Your task to perform on an android device: open app "Clock" (install if not already installed) Image 0: 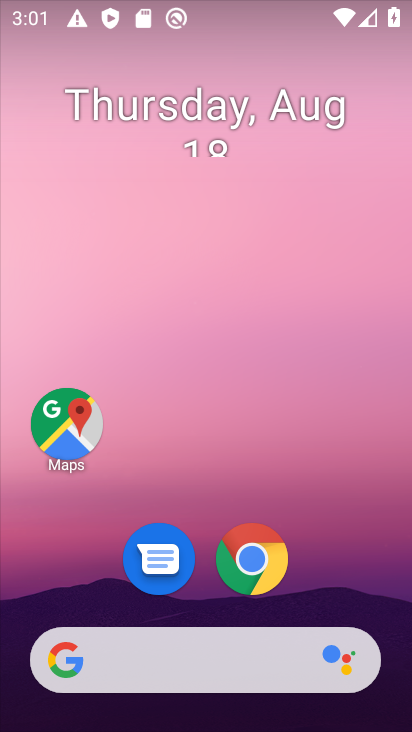
Step 0: drag from (146, 601) to (0, 68)
Your task to perform on an android device: open app "Clock" (install if not already installed) Image 1: 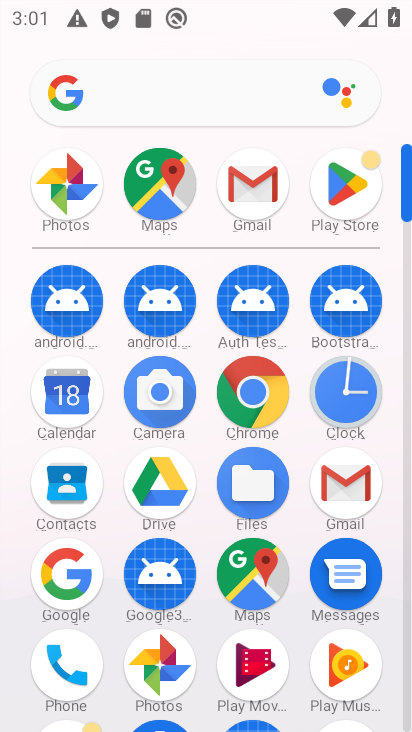
Step 1: click (347, 191)
Your task to perform on an android device: open app "Clock" (install if not already installed) Image 2: 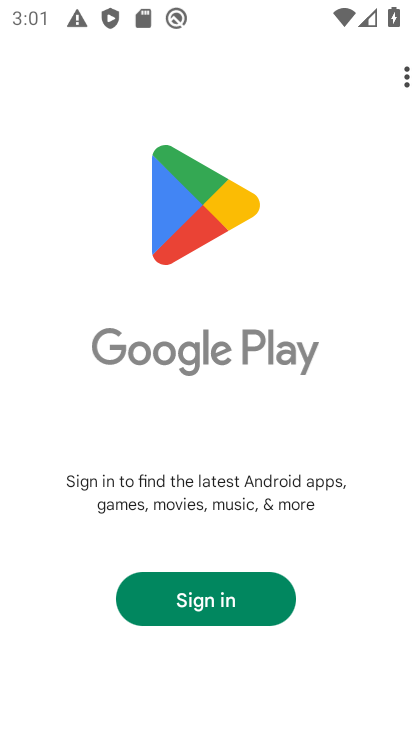
Step 2: click (195, 591)
Your task to perform on an android device: open app "Clock" (install if not already installed) Image 3: 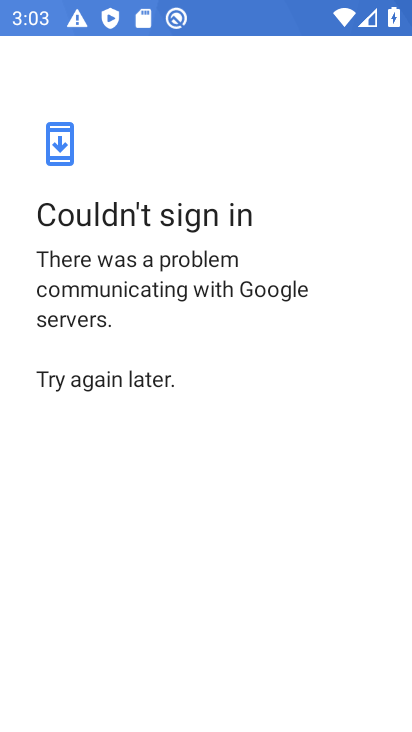
Step 3: task complete